Your task to perform on an android device: Go to ESPN.com Image 0: 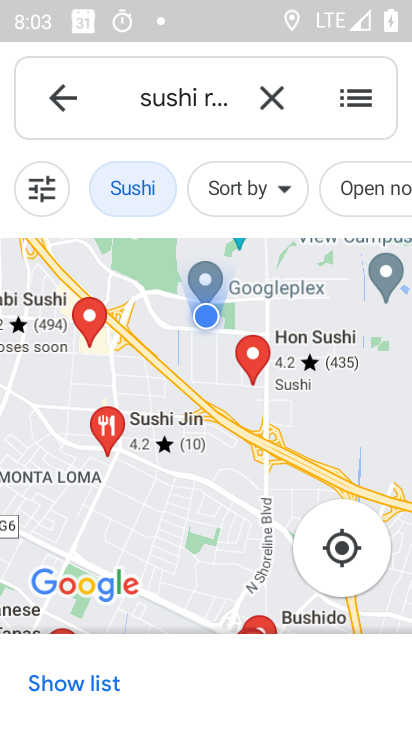
Step 0: press home button
Your task to perform on an android device: Go to ESPN.com Image 1: 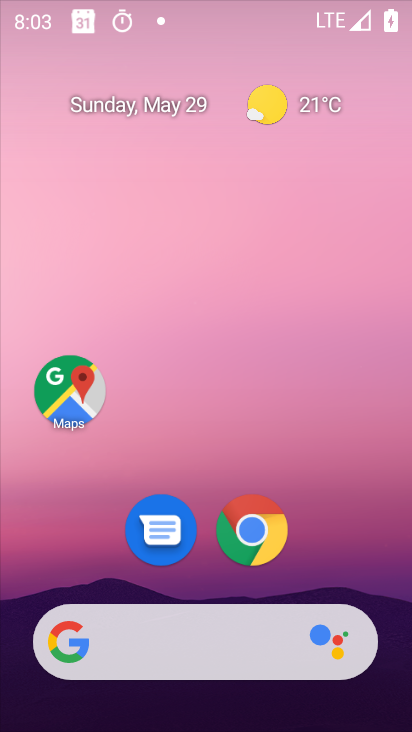
Step 1: drag from (266, 718) to (318, 232)
Your task to perform on an android device: Go to ESPN.com Image 2: 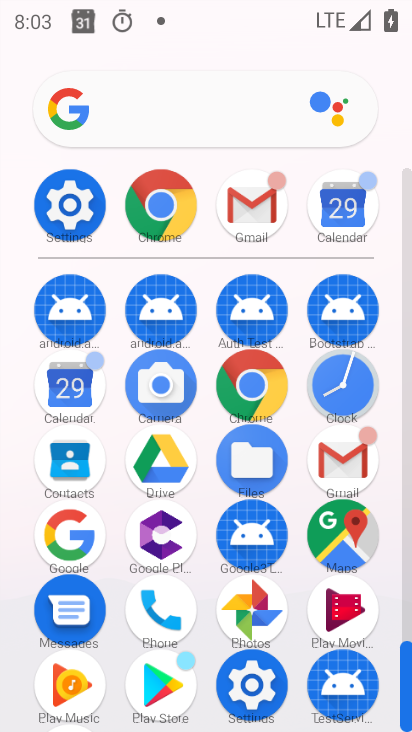
Step 2: click (165, 219)
Your task to perform on an android device: Go to ESPN.com Image 3: 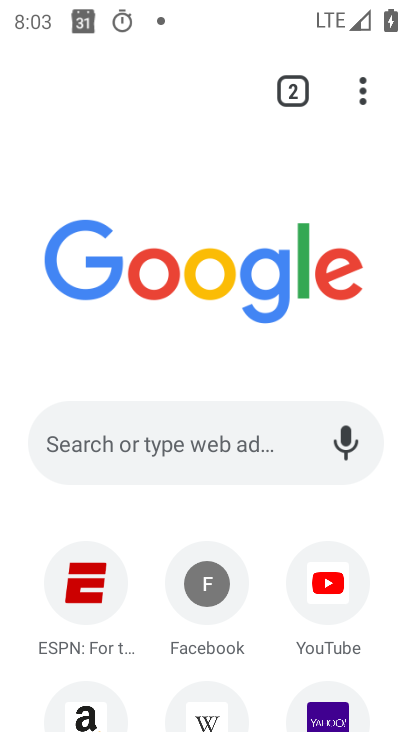
Step 3: click (89, 601)
Your task to perform on an android device: Go to ESPN.com Image 4: 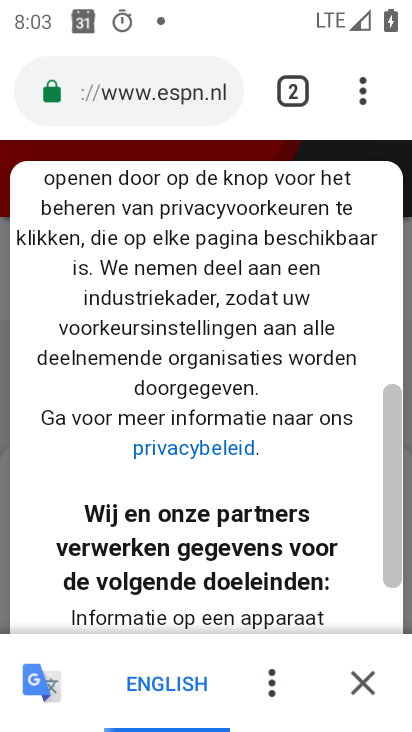
Step 4: task complete